Your task to perform on an android device: turn on airplane mode Image 0: 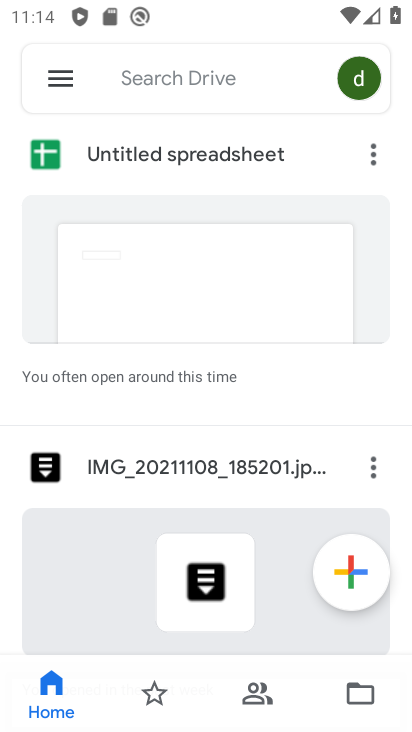
Step 0: press home button
Your task to perform on an android device: turn on airplane mode Image 1: 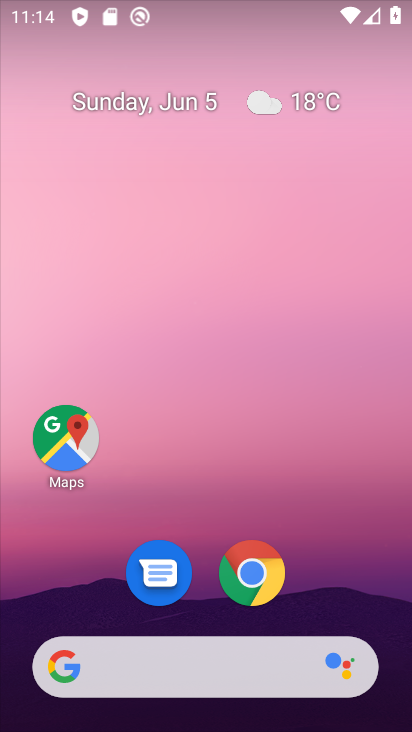
Step 1: drag from (195, 558) to (308, 74)
Your task to perform on an android device: turn on airplane mode Image 2: 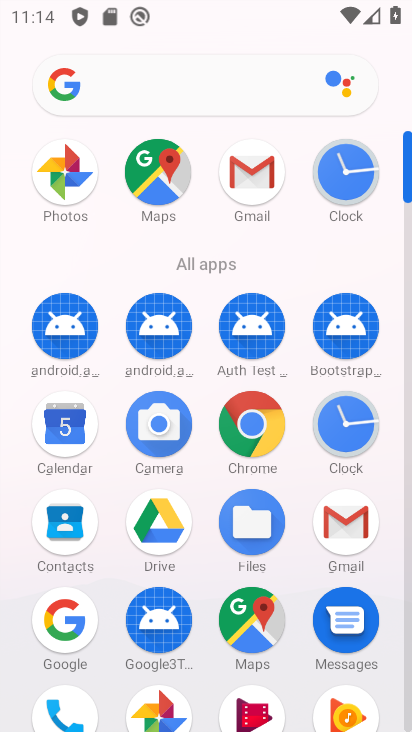
Step 2: drag from (211, 583) to (316, 169)
Your task to perform on an android device: turn on airplane mode Image 3: 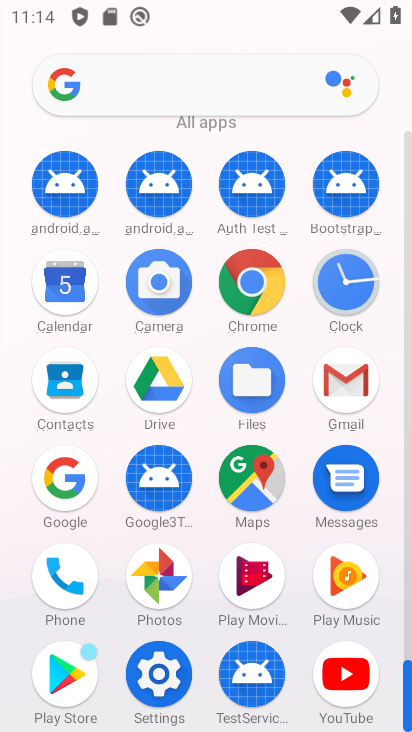
Step 3: click (170, 676)
Your task to perform on an android device: turn on airplane mode Image 4: 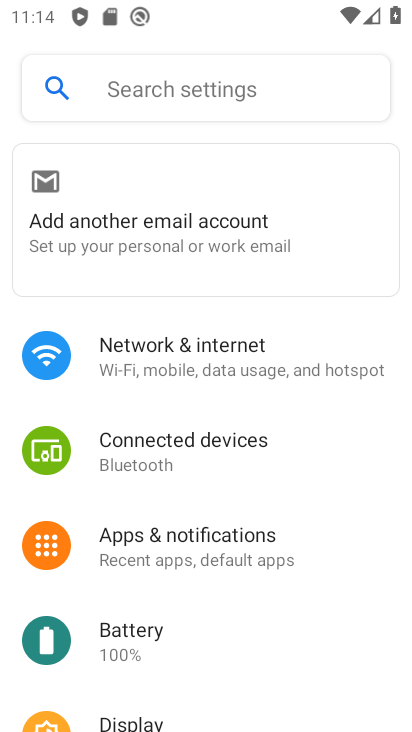
Step 4: click (207, 365)
Your task to perform on an android device: turn on airplane mode Image 5: 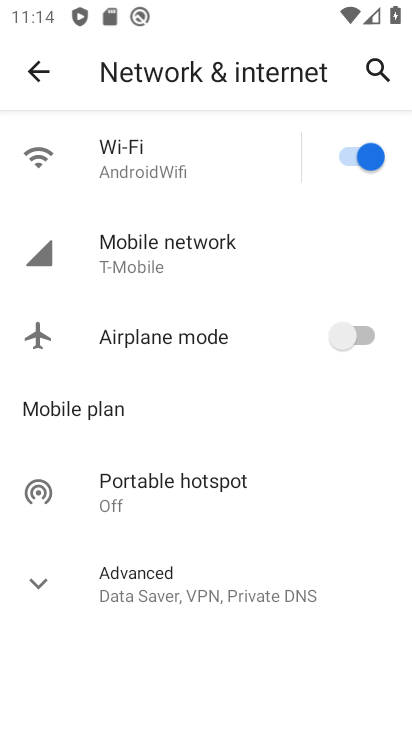
Step 5: click (363, 327)
Your task to perform on an android device: turn on airplane mode Image 6: 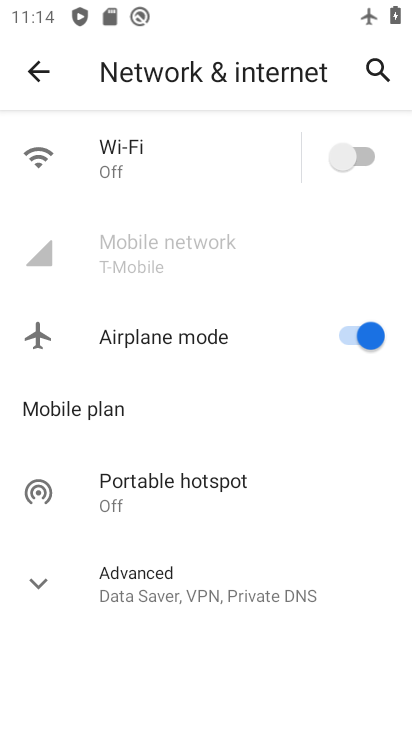
Step 6: task complete